Your task to perform on an android device: set the timer Image 0: 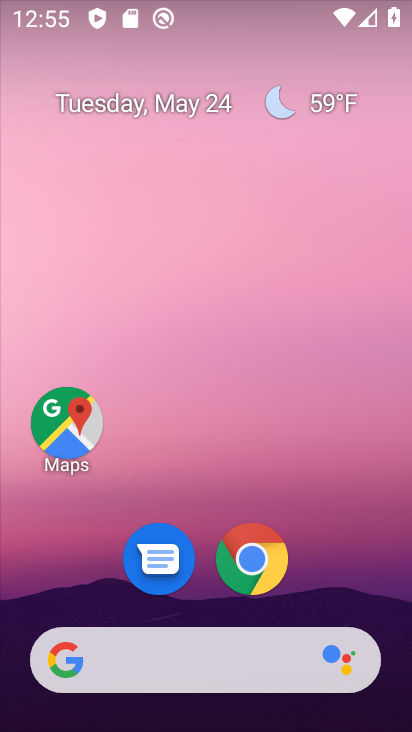
Step 0: drag from (390, 640) to (284, 38)
Your task to perform on an android device: set the timer Image 1: 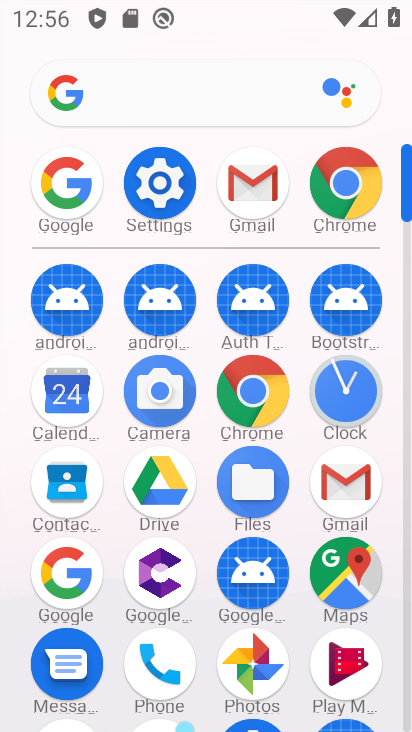
Step 1: click (357, 377)
Your task to perform on an android device: set the timer Image 2: 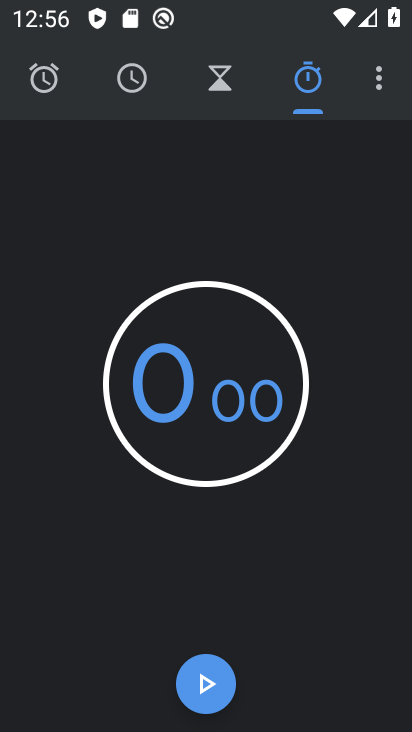
Step 2: click (382, 91)
Your task to perform on an android device: set the timer Image 3: 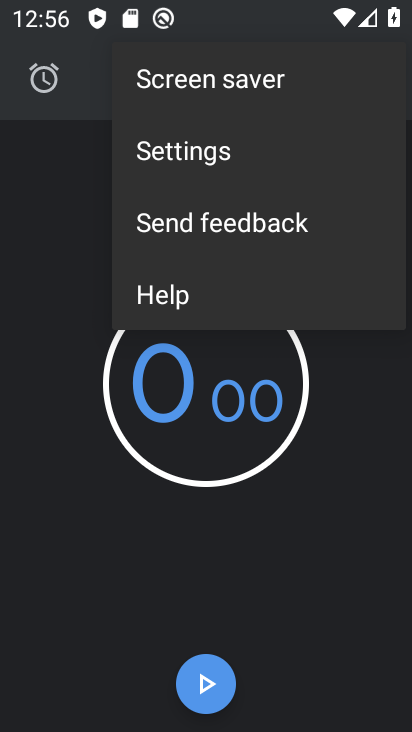
Step 3: click (217, 168)
Your task to perform on an android device: set the timer Image 4: 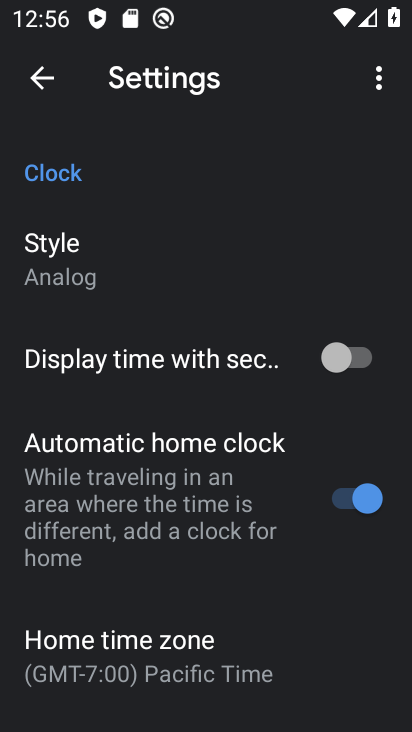
Step 4: drag from (199, 631) to (209, 167)
Your task to perform on an android device: set the timer Image 5: 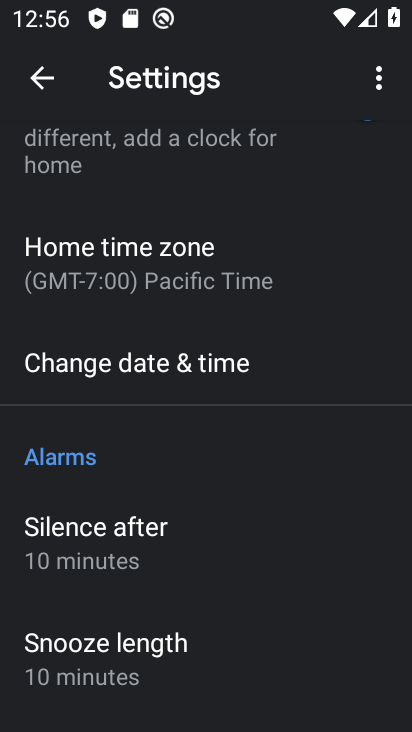
Step 5: click (176, 290)
Your task to perform on an android device: set the timer Image 6: 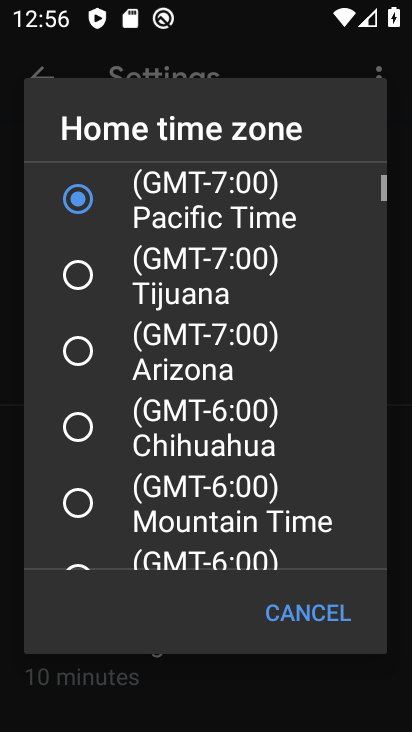
Step 6: click (184, 340)
Your task to perform on an android device: set the timer Image 7: 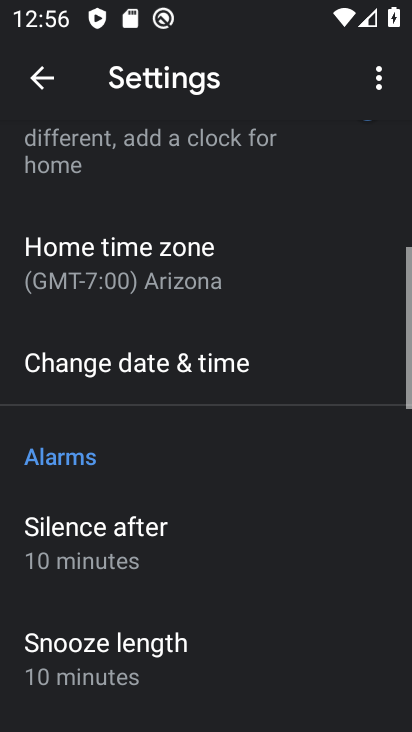
Step 7: task complete